Your task to perform on an android device: Open location settings Image 0: 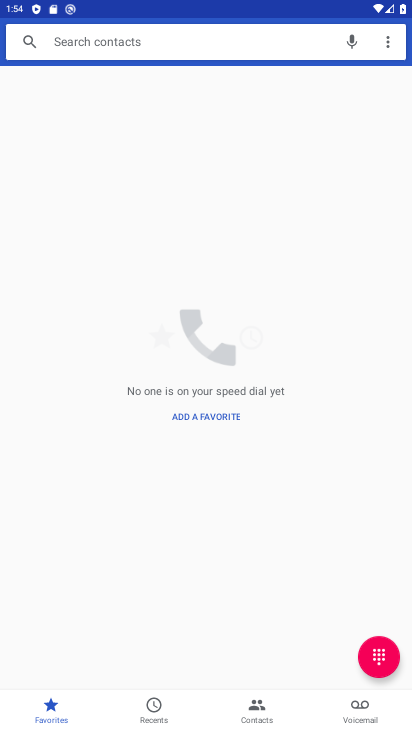
Step 0: press home button
Your task to perform on an android device: Open location settings Image 1: 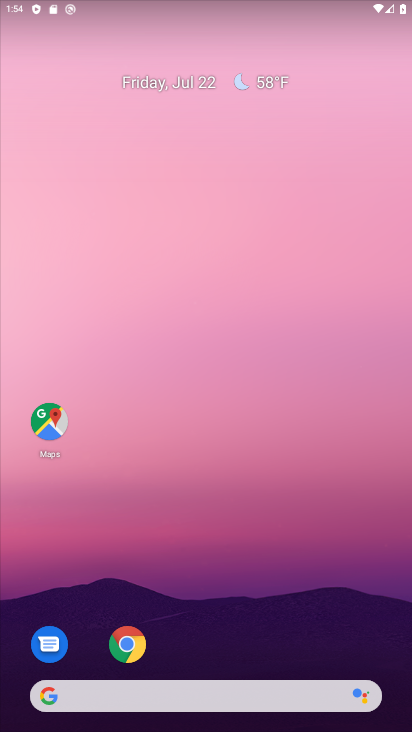
Step 1: drag from (203, 644) to (242, 179)
Your task to perform on an android device: Open location settings Image 2: 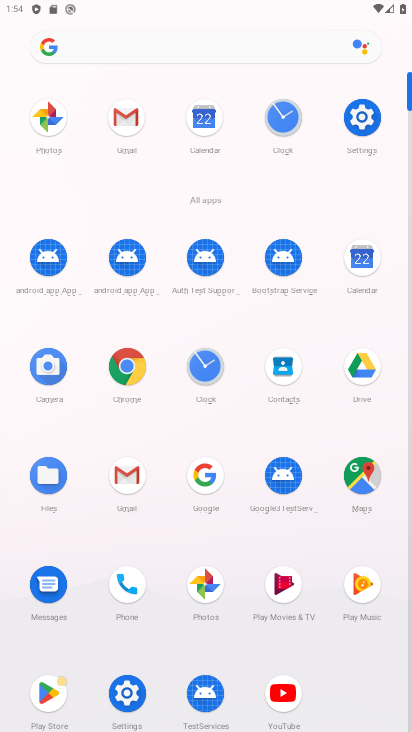
Step 2: click (347, 126)
Your task to perform on an android device: Open location settings Image 3: 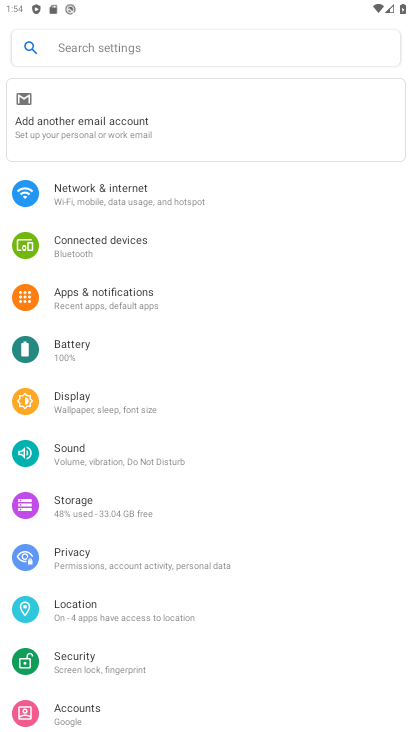
Step 3: click (112, 622)
Your task to perform on an android device: Open location settings Image 4: 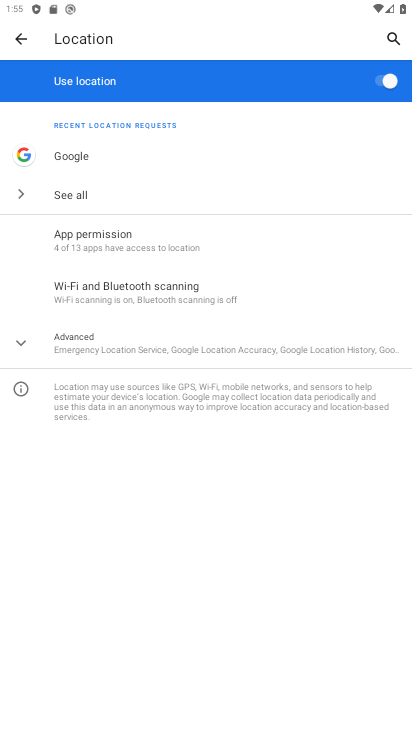
Step 4: task complete